Your task to perform on an android device: open the mobile data screen to see how much data has been used Image 0: 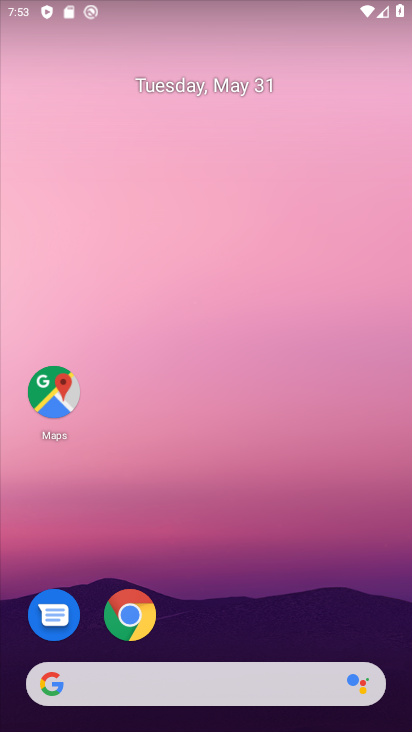
Step 0: press home button
Your task to perform on an android device: open the mobile data screen to see how much data has been used Image 1: 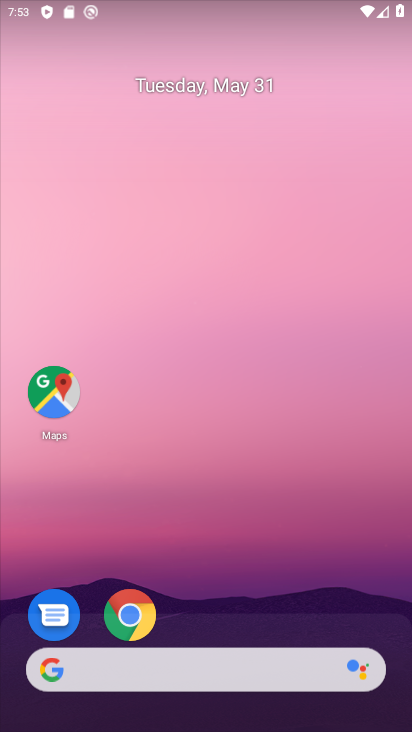
Step 1: drag from (133, 688) to (318, 232)
Your task to perform on an android device: open the mobile data screen to see how much data has been used Image 2: 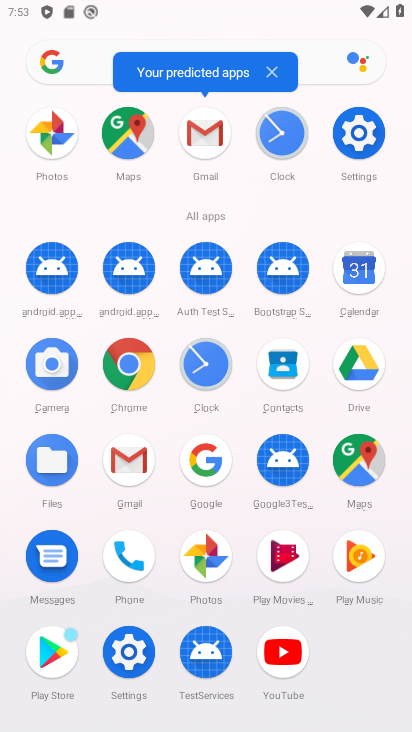
Step 2: click (364, 142)
Your task to perform on an android device: open the mobile data screen to see how much data has been used Image 3: 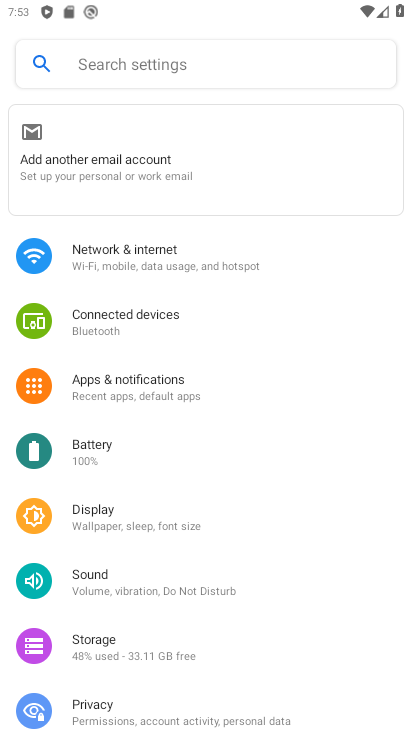
Step 3: click (145, 266)
Your task to perform on an android device: open the mobile data screen to see how much data has been used Image 4: 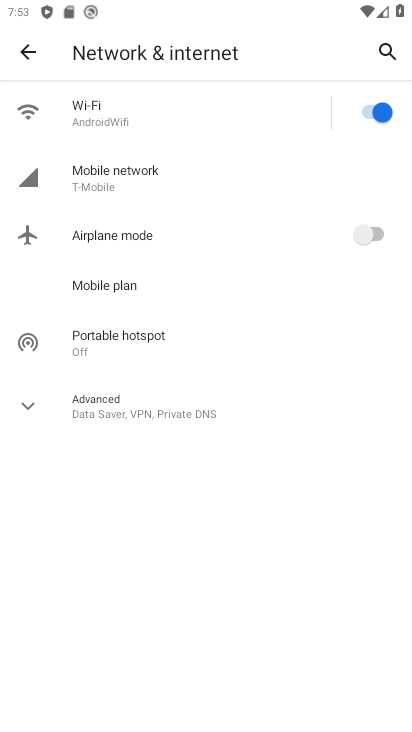
Step 4: click (134, 181)
Your task to perform on an android device: open the mobile data screen to see how much data has been used Image 5: 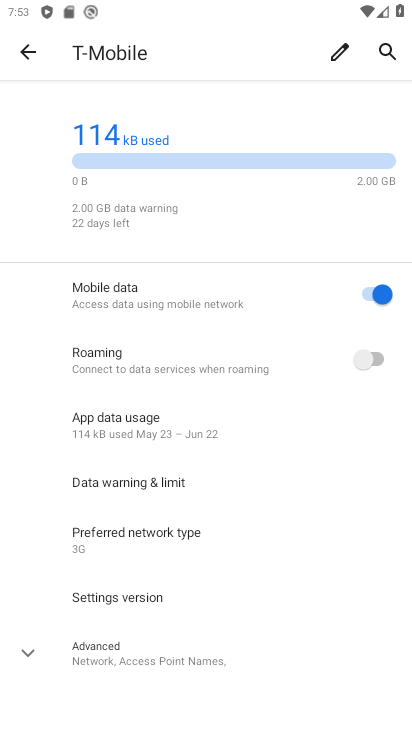
Step 5: task complete